Your task to perform on an android device: add a contact in the contacts app Image 0: 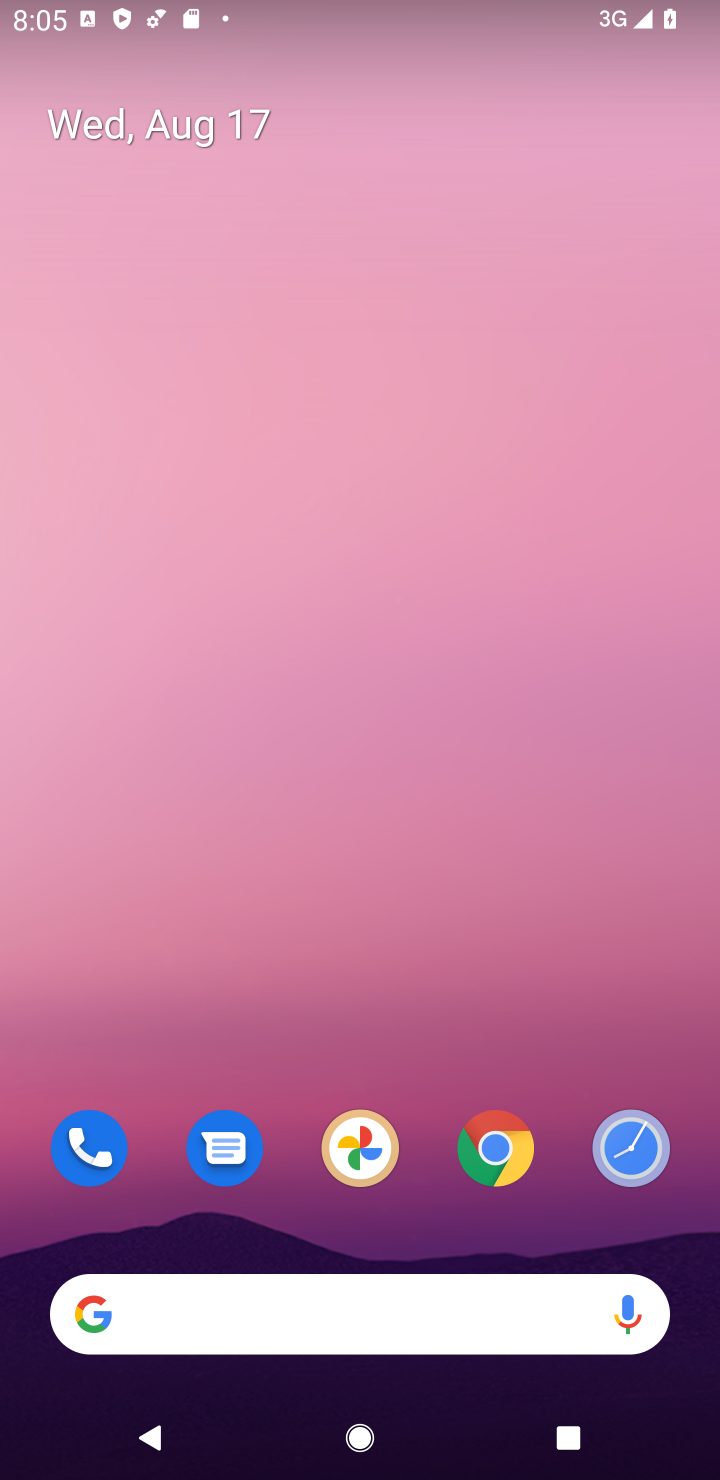
Step 0: drag from (565, 1223) to (558, 303)
Your task to perform on an android device: add a contact in the contacts app Image 1: 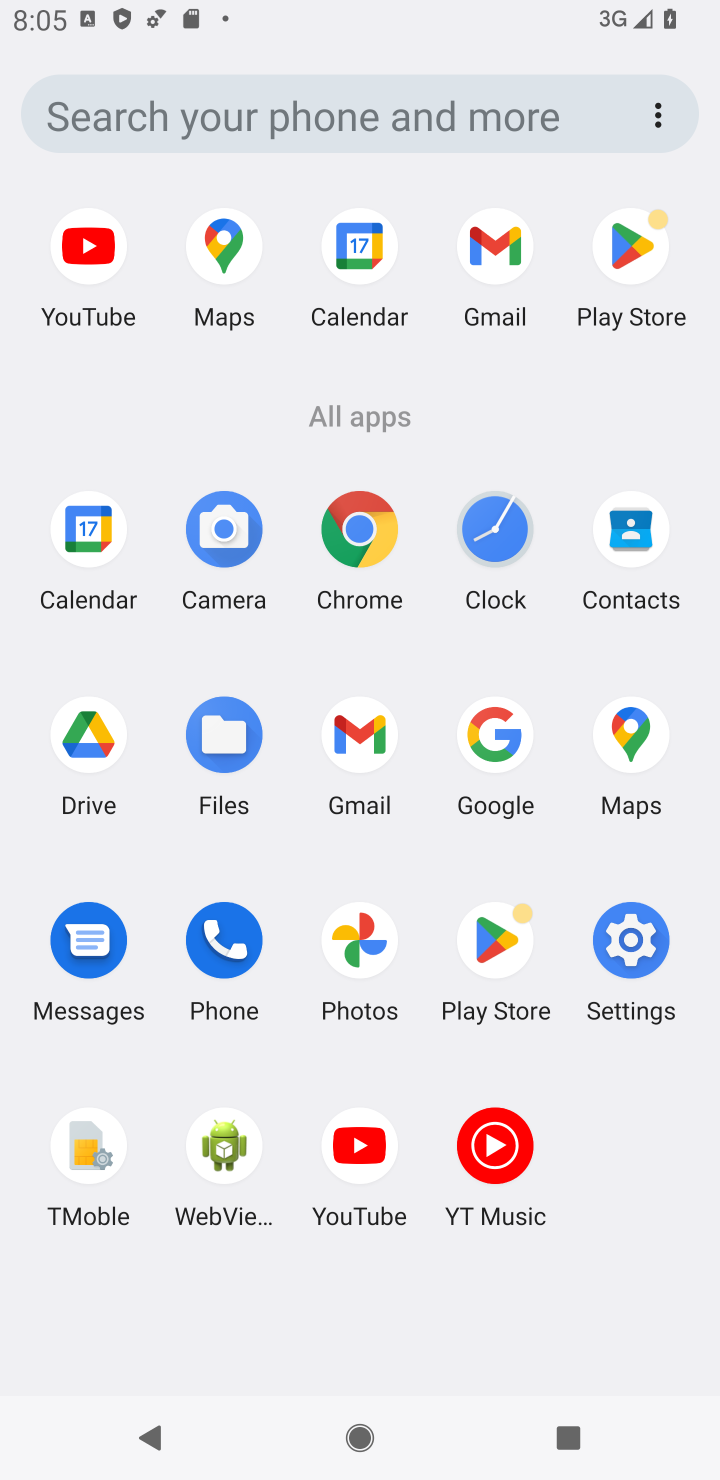
Step 1: click (633, 532)
Your task to perform on an android device: add a contact in the contacts app Image 2: 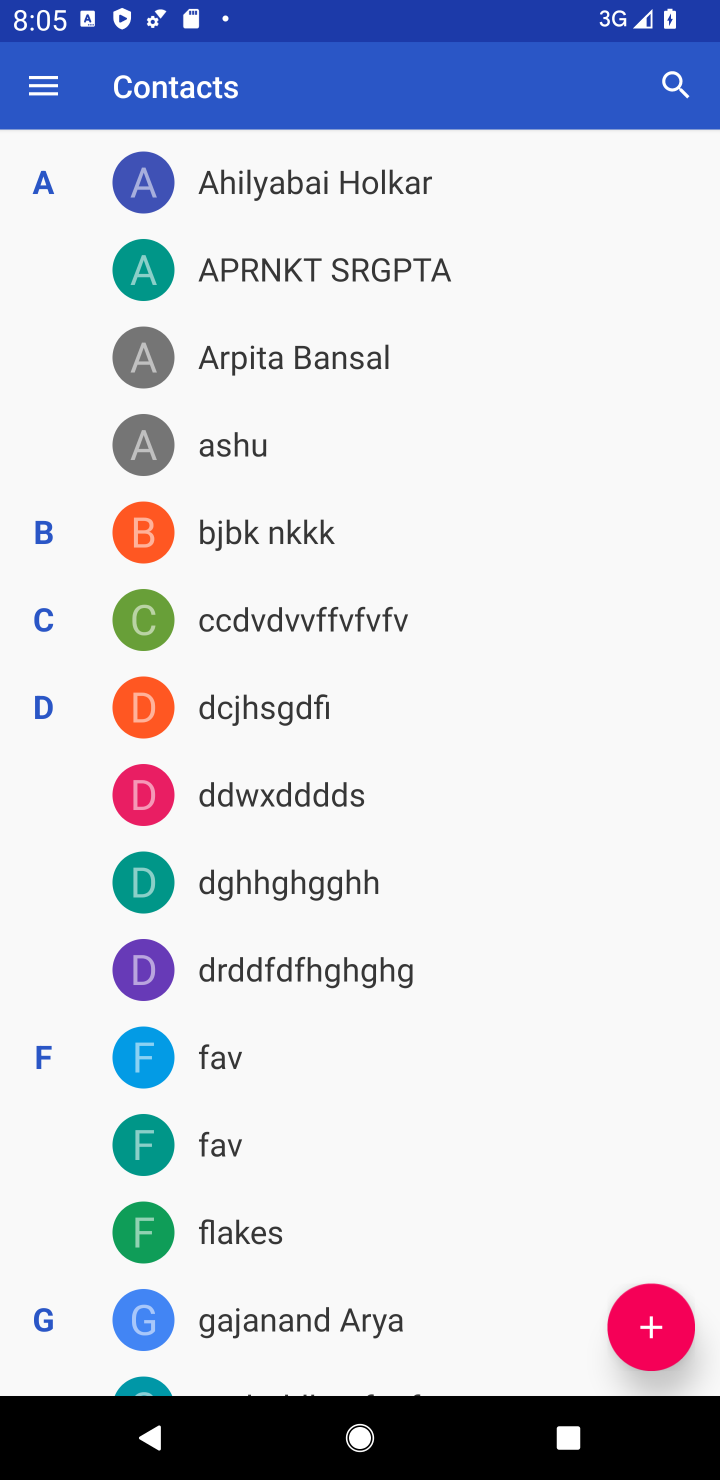
Step 2: click (653, 1323)
Your task to perform on an android device: add a contact in the contacts app Image 3: 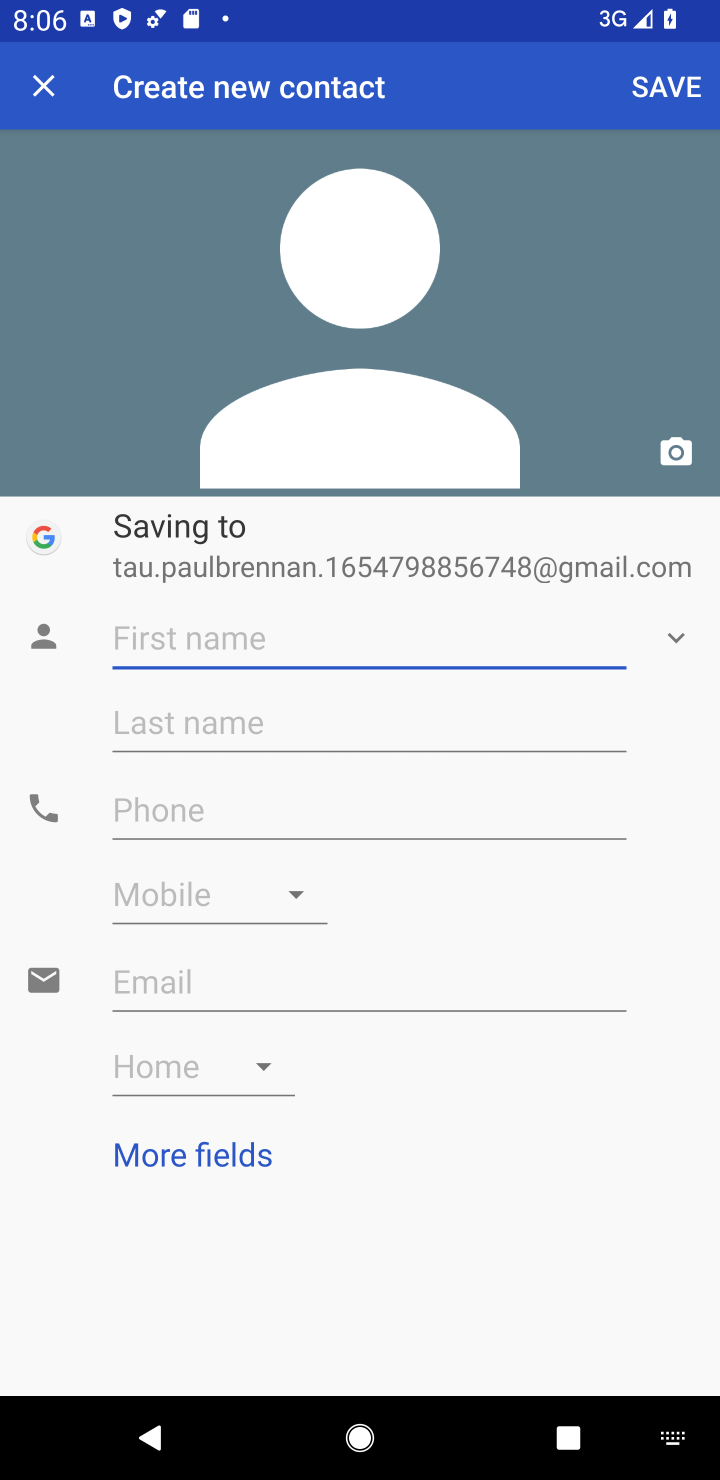
Step 3: type "bcvnmxvffs"
Your task to perform on an android device: add a contact in the contacts app Image 4: 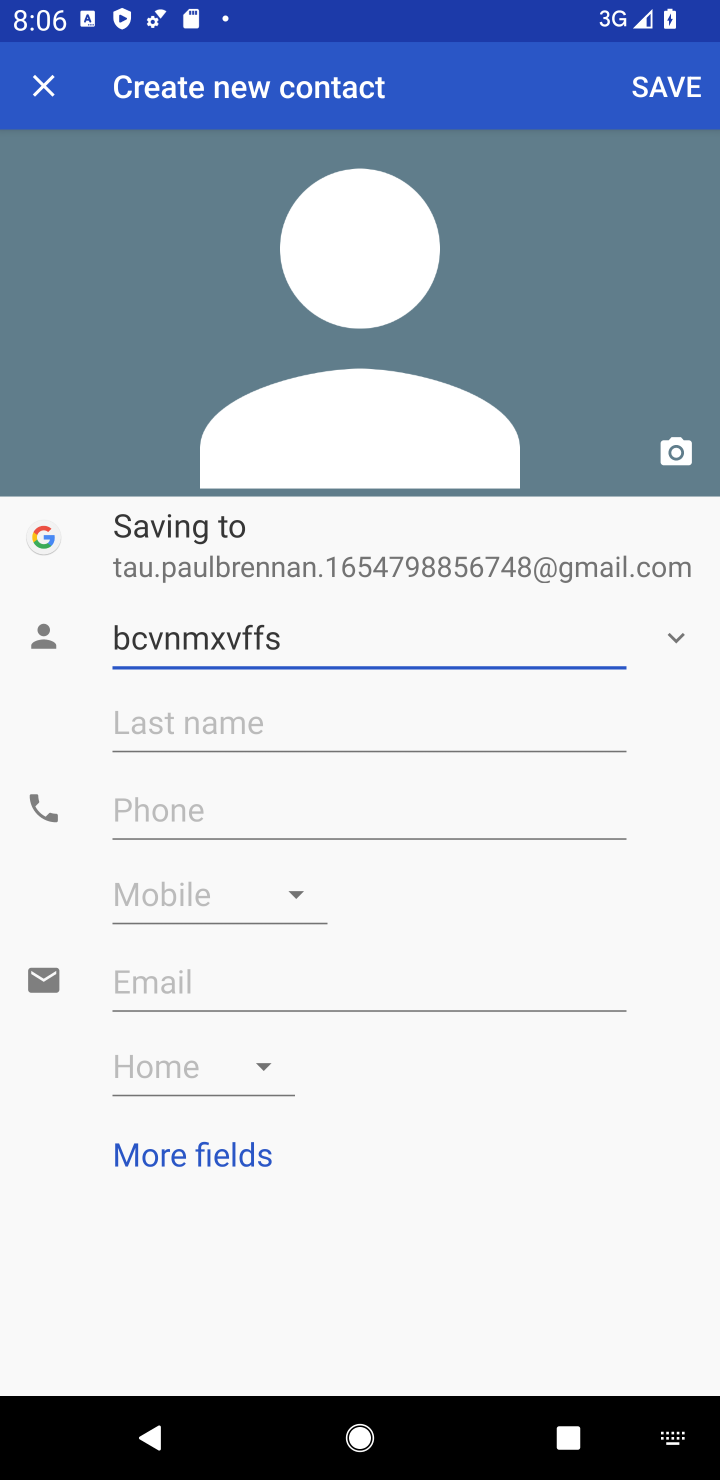
Step 4: click (218, 820)
Your task to perform on an android device: add a contact in the contacts app Image 5: 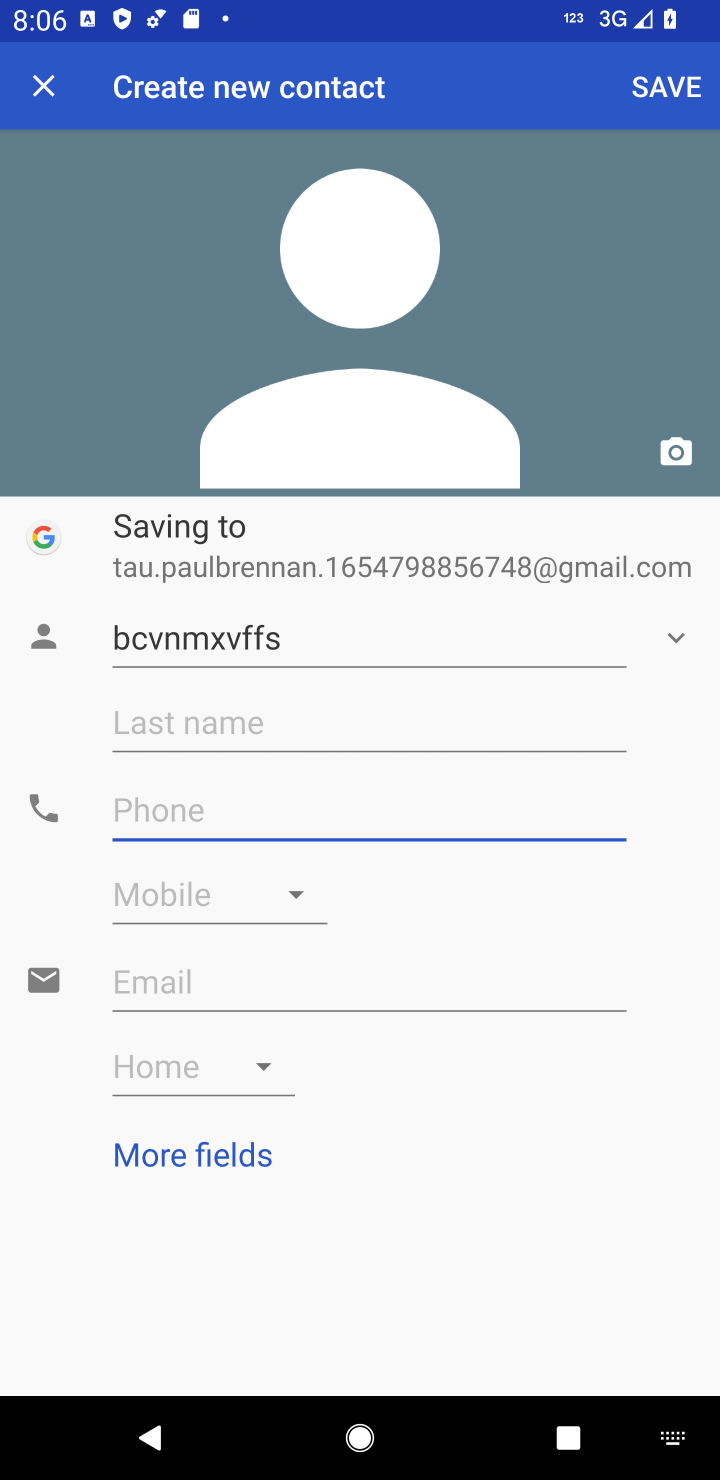
Step 5: type "7876585996"
Your task to perform on an android device: add a contact in the contacts app Image 6: 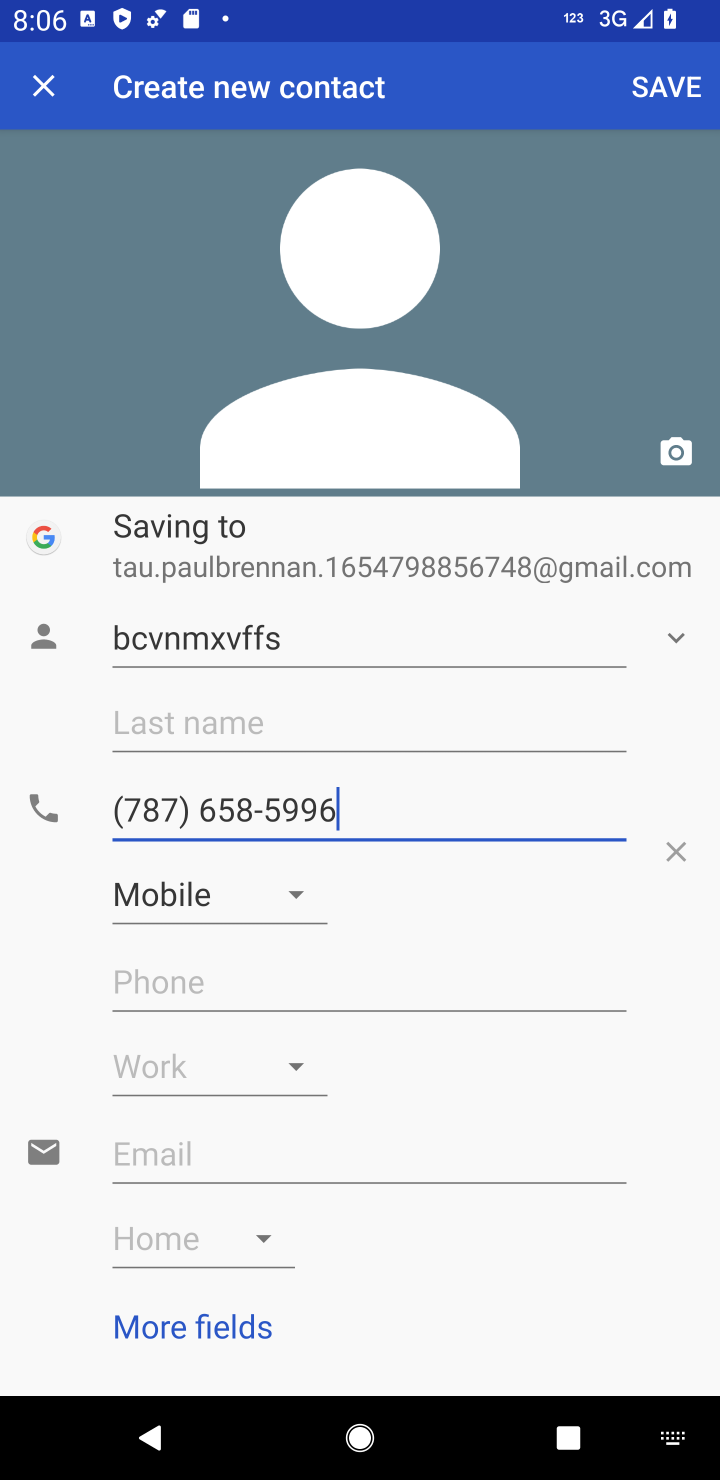
Step 6: click (661, 78)
Your task to perform on an android device: add a contact in the contacts app Image 7: 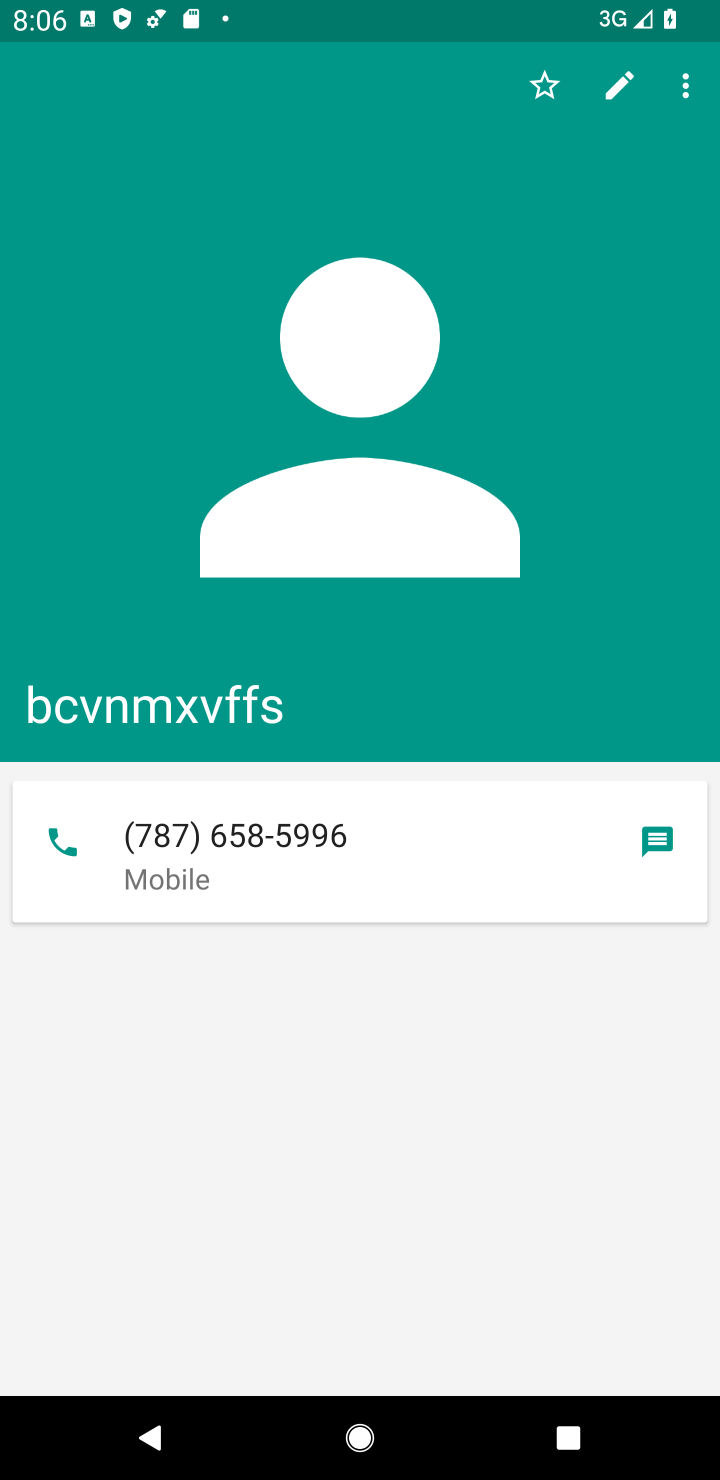
Step 7: task complete